Your task to perform on an android device: turn on priority inbox in the gmail app Image 0: 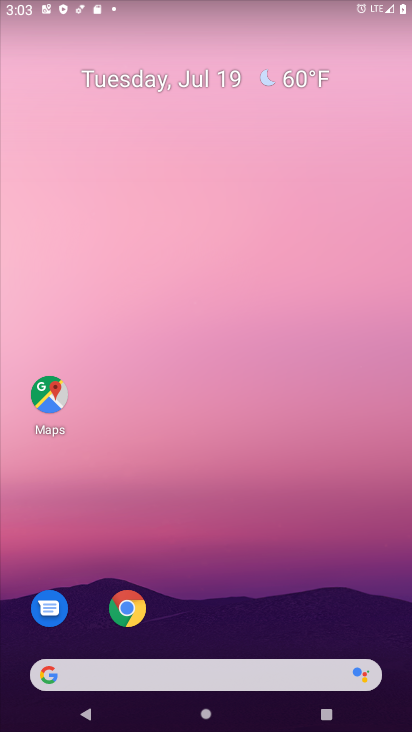
Step 0: drag from (298, 498) to (290, 41)
Your task to perform on an android device: turn on priority inbox in the gmail app Image 1: 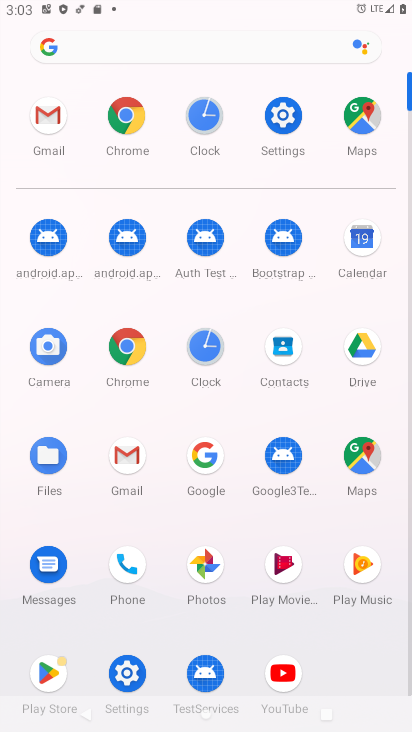
Step 1: click (52, 130)
Your task to perform on an android device: turn on priority inbox in the gmail app Image 2: 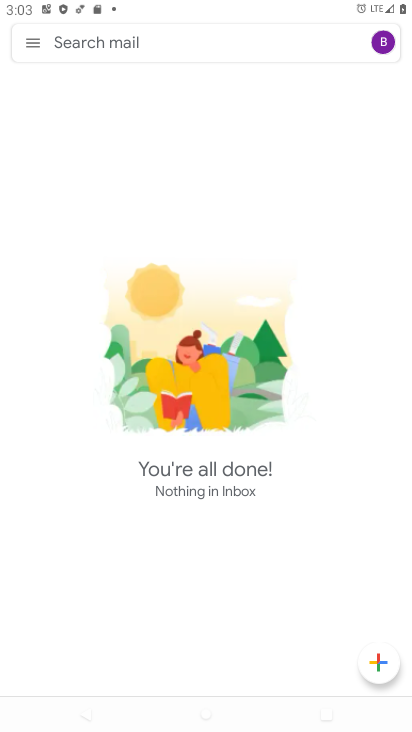
Step 2: click (25, 50)
Your task to perform on an android device: turn on priority inbox in the gmail app Image 3: 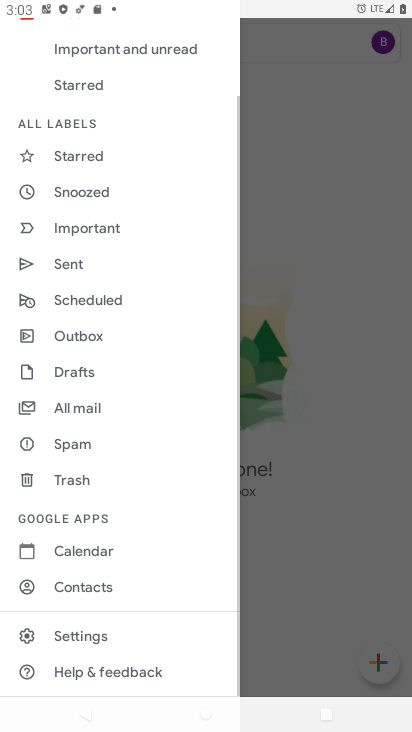
Step 3: click (63, 635)
Your task to perform on an android device: turn on priority inbox in the gmail app Image 4: 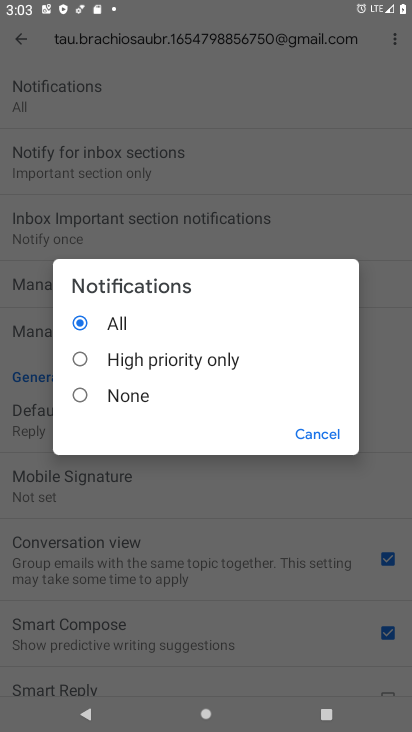
Step 4: click (332, 427)
Your task to perform on an android device: turn on priority inbox in the gmail app Image 5: 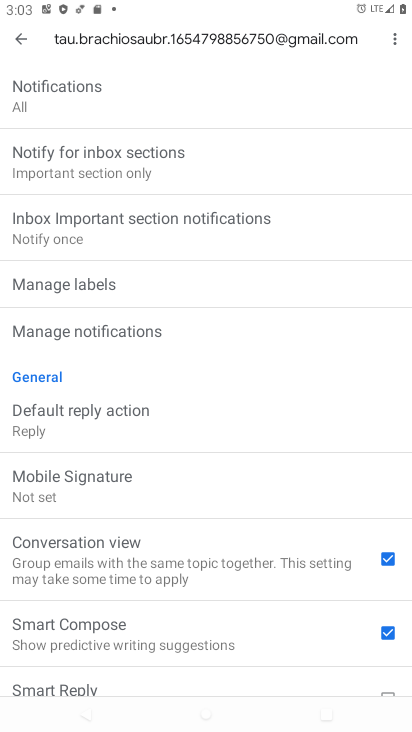
Step 5: task complete